Your task to perform on an android device: Do I have any events today? Image 0: 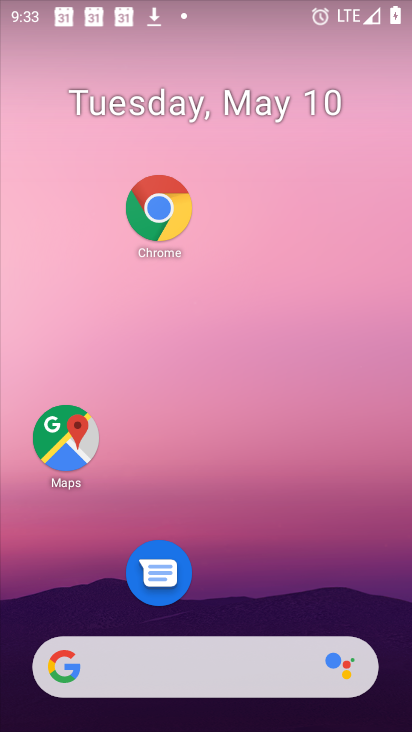
Step 0: drag from (310, 676) to (344, 63)
Your task to perform on an android device: Do I have any events today? Image 1: 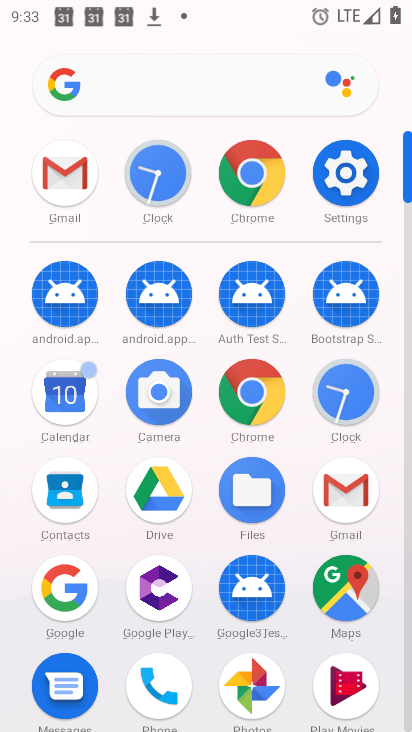
Step 1: click (53, 398)
Your task to perform on an android device: Do I have any events today? Image 2: 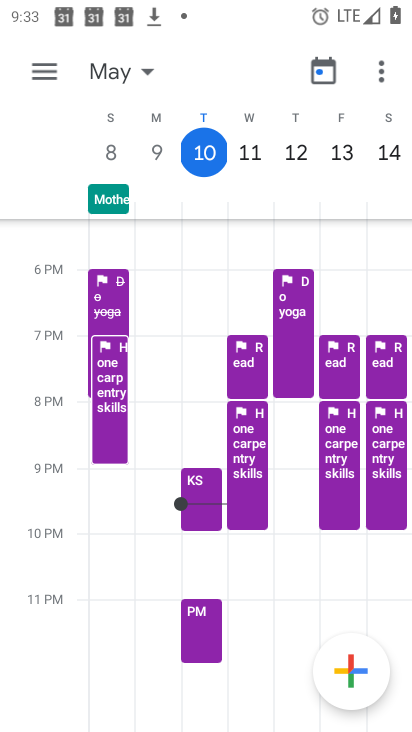
Step 2: click (199, 147)
Your task to perform on an android device: Do I have any events today? Image 3: 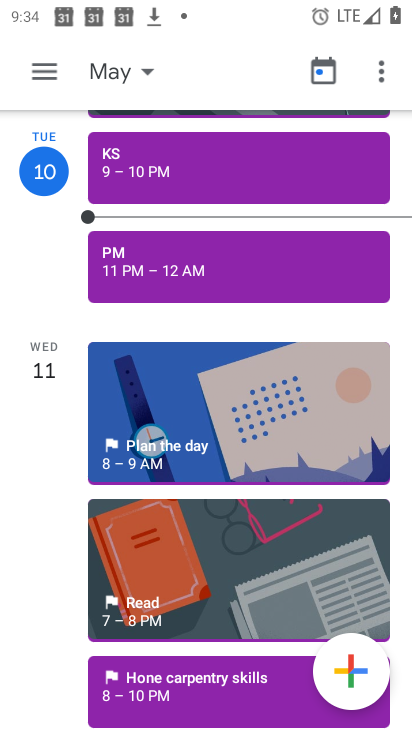
Step 3: task complete